Your task to perform on an android device: Open calendar and show me the first week of next month Image 0: 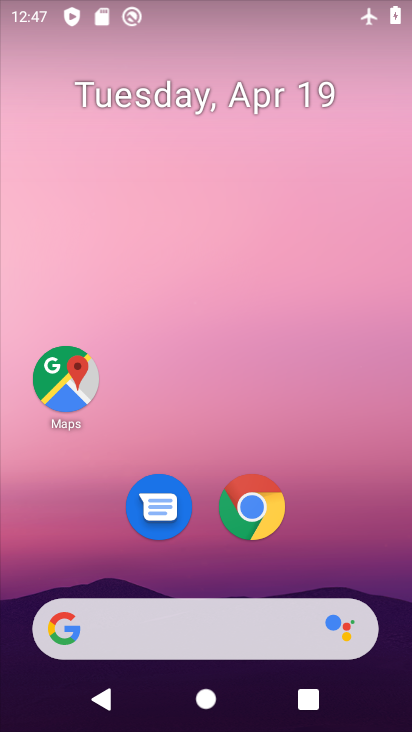
Step 0: click (253, 118)
Your task to perform on an android device: Open calendar and show me the first week of next month Image 1: 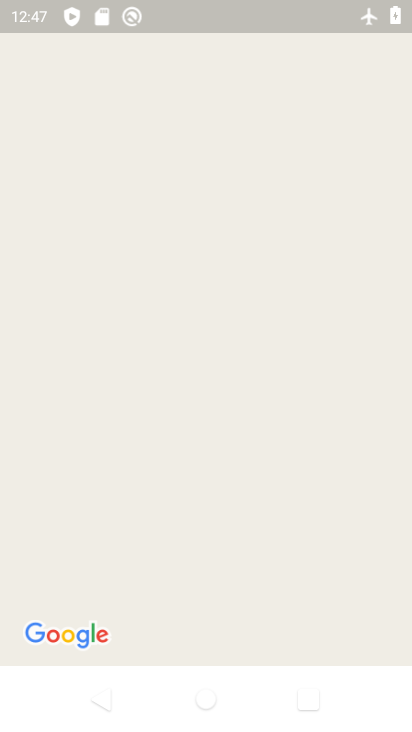
Step 1: press home button
Your task to perform on an android device: Open calendar and show me the first week of next month Image 2: 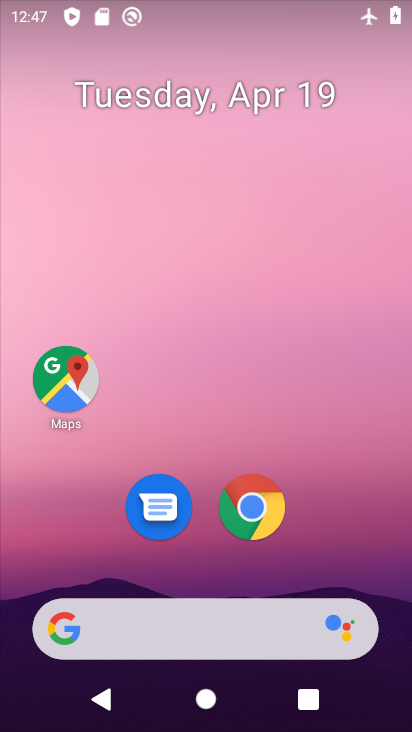
Step 2: drag from (204, 577) to (237, 76)
Your task to perform on an android device: Open calendar and show me the first week of next month Image 3: 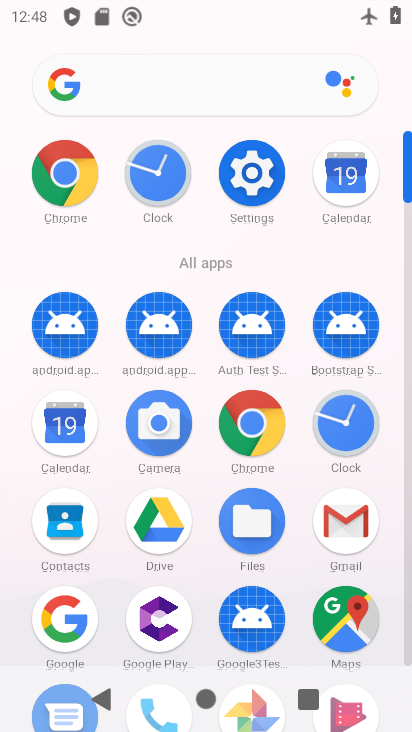
Step 3: click (60, 417)
Your task to perform on an android device: Open calendar and show me the first week of next month Image 4: 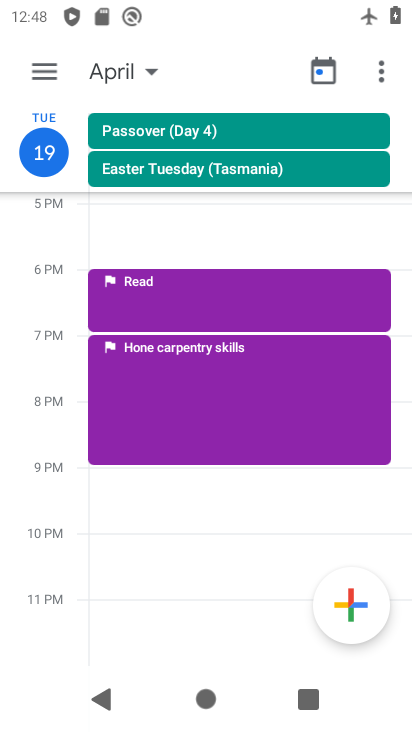
Step 4: click (33, 65)
Your task to perform on an android device: Open calendar and show me the first week of next month Image 5: 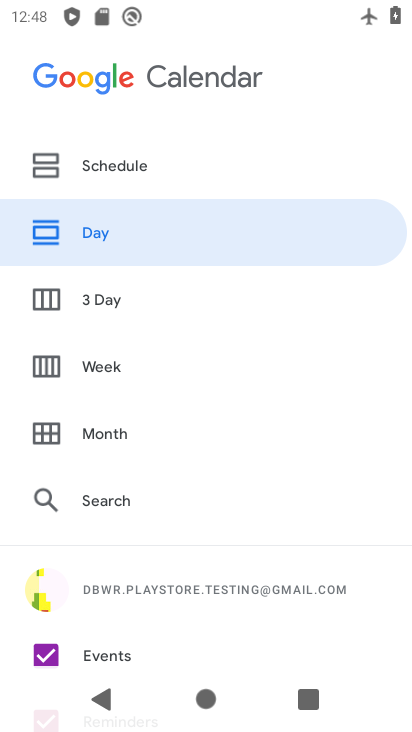
Step 5: click (69, 364)
Your task to perform on an android device: Open calendar and show me the first week of next month Image 6: 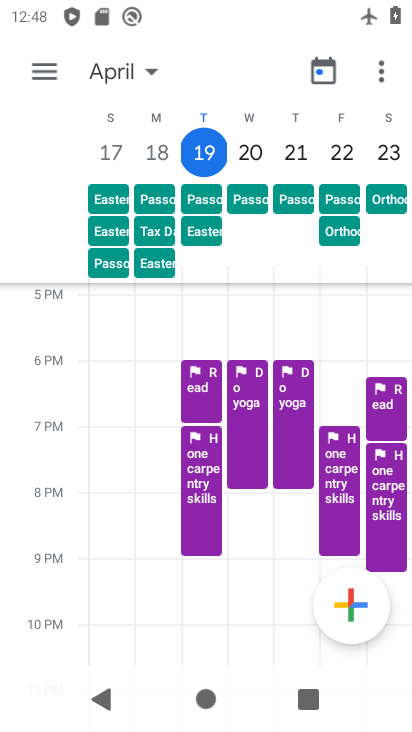
Step 6: drag from (386, 150) to (55, 146)
Your task to perform on an android device: Open calendar and show me the first week of next month Image 7: 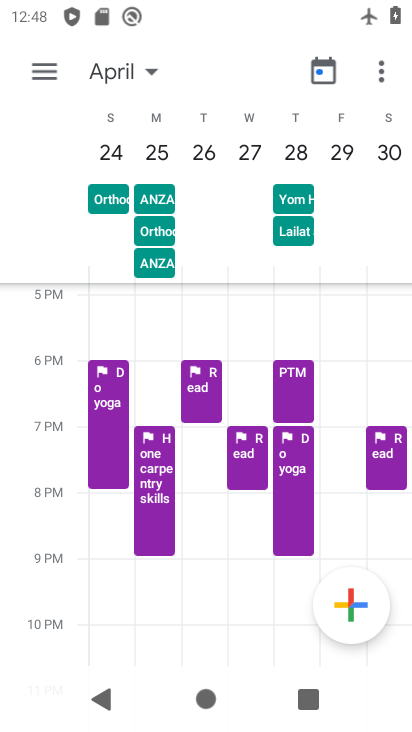
Step 7: drag from (382, 154) to (46, 149)
Your task to perform on an android device: Open calendar and show me the first week of next month Image 8: 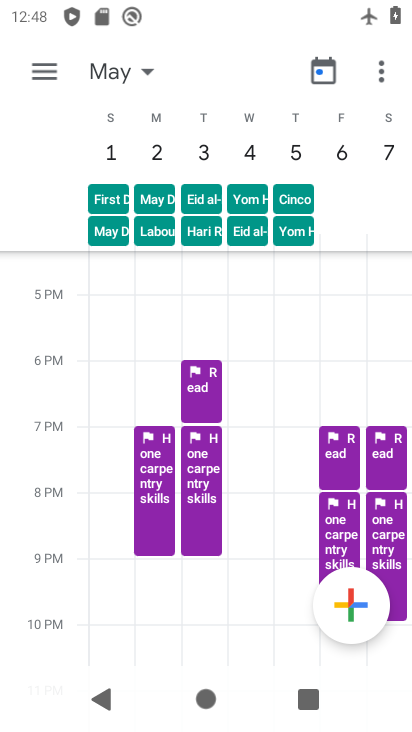
Step 8: click (115, 149)
Your task to perform on an android device: Open calendar and show me the first week of next month Image 9: 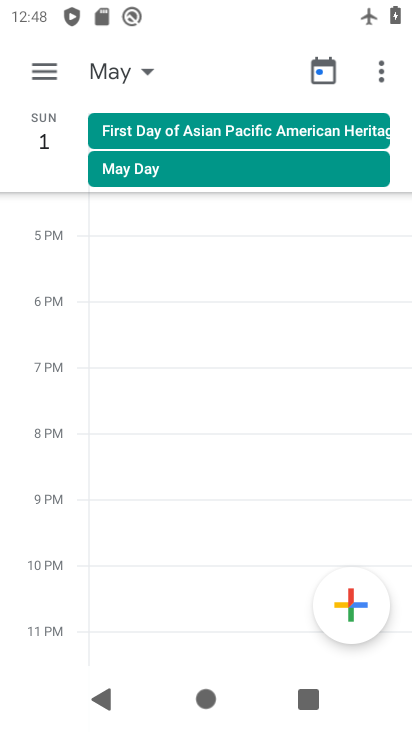
Step 9: click (65, 164)
Your task to perform on an android device: Open calendar and show me the first week of next month Image 10: 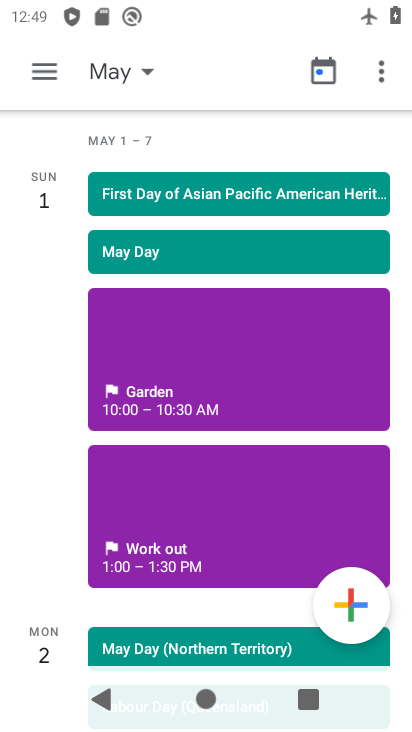
Step 10: task complete